Your task to perform on an android device: check google app version Image 0: 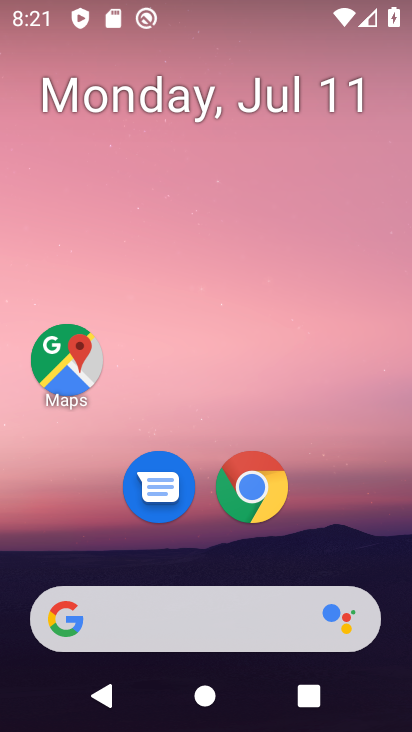
Step 0: drag from (144, 574) to (215, 72)
Your task to perform on an android device: check google app version Image 1: 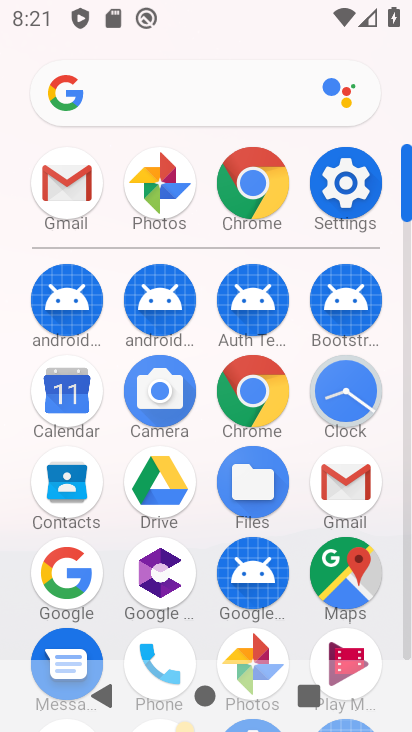
Step 1: click (68, 588)
Your task to perform on an android device: check google app version Image 2: 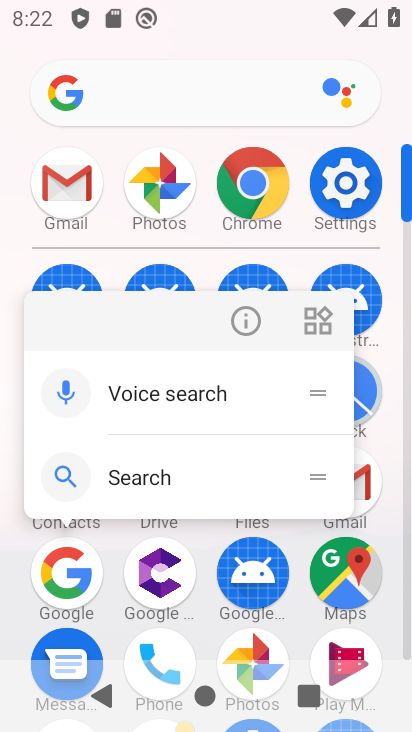
Step 2: click (244, 320)
Your task to perform on an android device: check google app version Image 3: 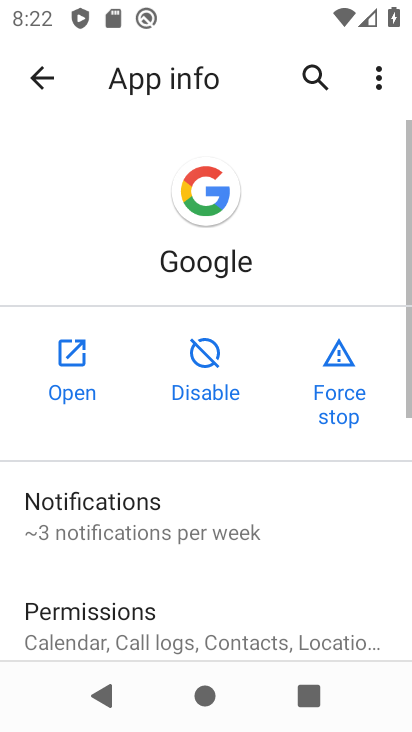
Step 3: drag from (150, 634) to (297, 26)
Your task to perform on an android device: check google app version Image 4: 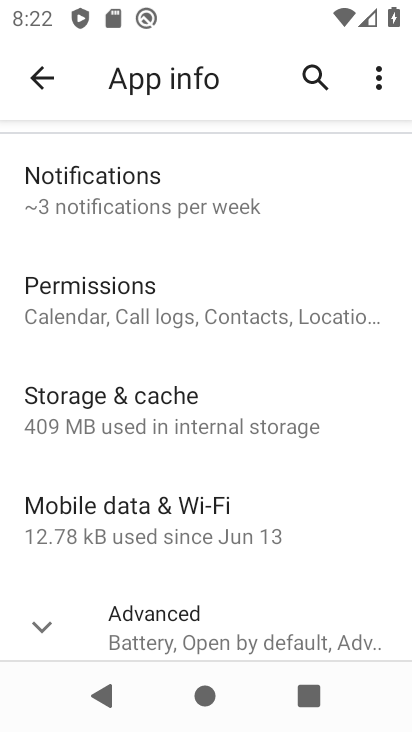
Step 4: click (190, 635)
Your task to perform on an android device: check google app version Image 5: 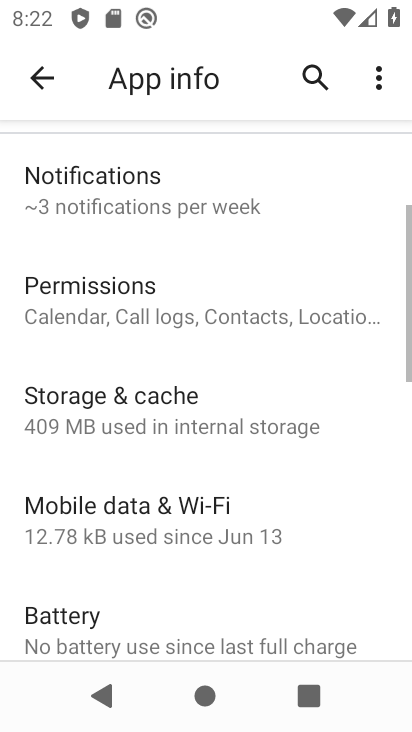
Step 5: task complete